Your task to perform on an android device: change the upload size in google photos Image 0: 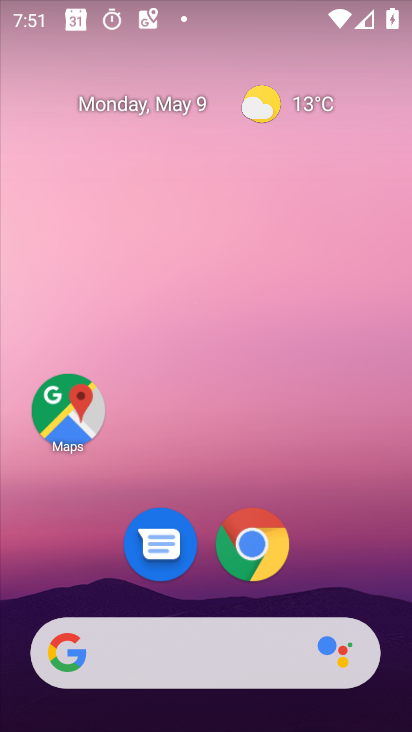
Step 0: drag from (338, 514) to (230, 6)
Your task to perform on an android device: change the upload size in google photos Image 1: 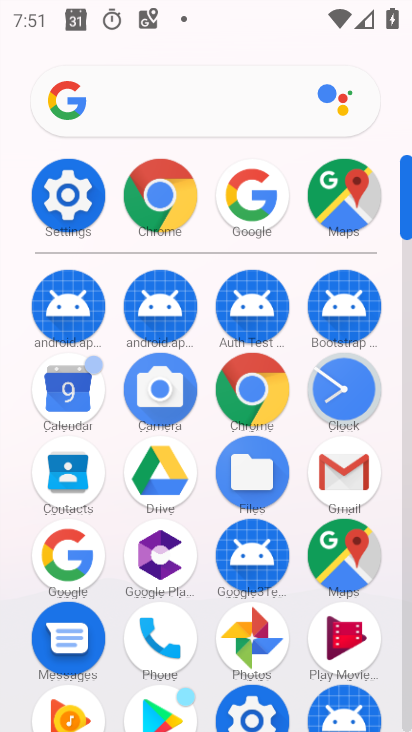
Step 1: drag from (392, 486) to (331, 140)
Your task to perform on an android device: change the upload size in google photos Image 2: 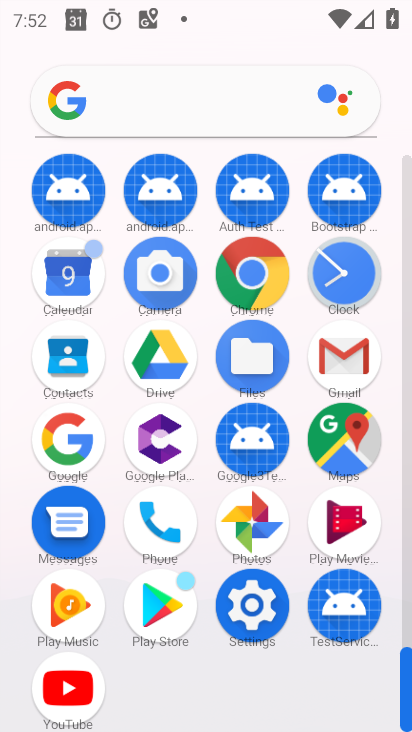
Step 2: click (247, 520)
Your task to perform on an android device: change the upload size in google photos Image 3: 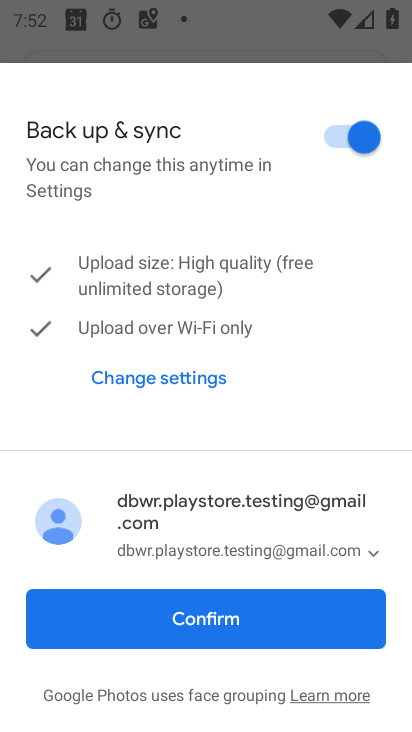
Step 3: click (199, 606)
Your task to perform on an android device: change the upload size in google photos Image 4: 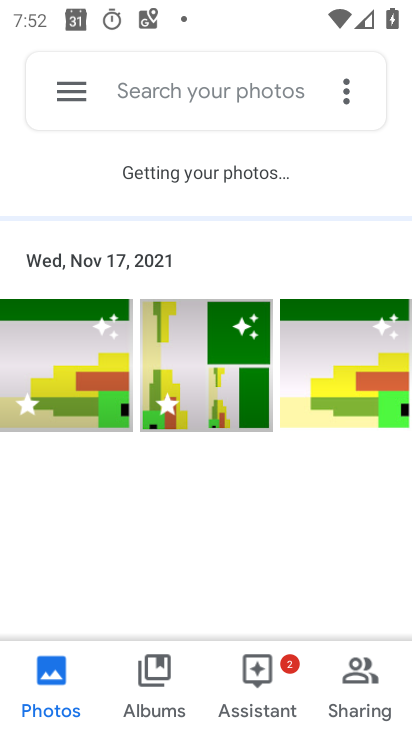
Step 4: click (69, 102)
Your task to perform on an android device: change the upload size in google photos Image 5: 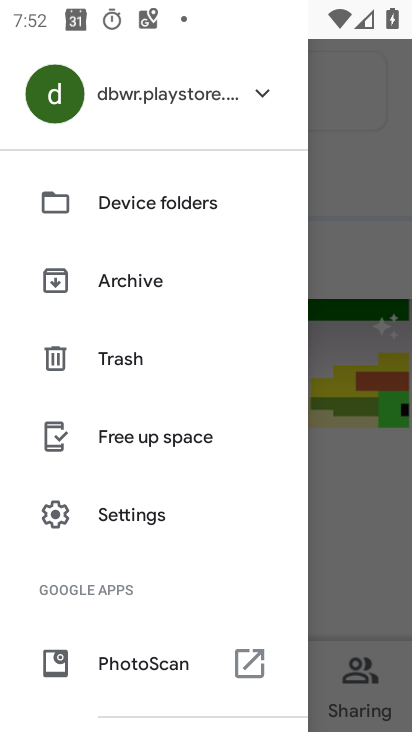
Step 5: click (129, 514)
Your task to perform on an android device: change the upload size in google photos Image 6: 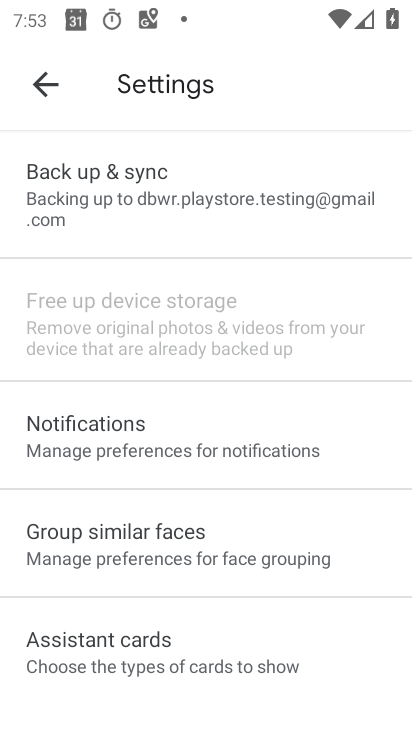
Step 6: click (50, 209)
Your task to perform on an android device: change the upload size in google photos Image 7: 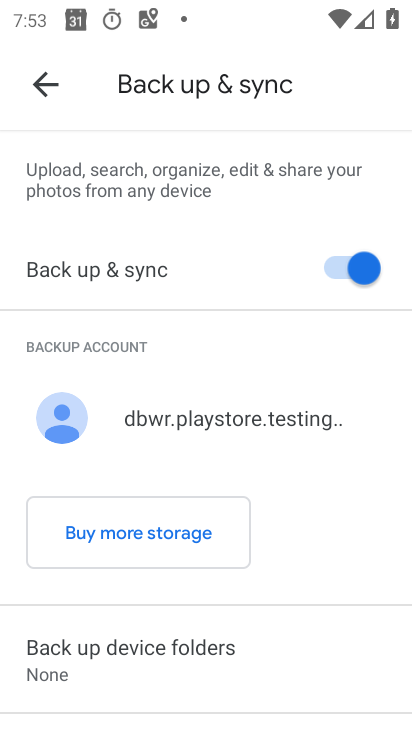
Step 7: drag from (315, 650) to (343, 332)
Your task to perform on an android device: change the upload size in google photos Image 8: 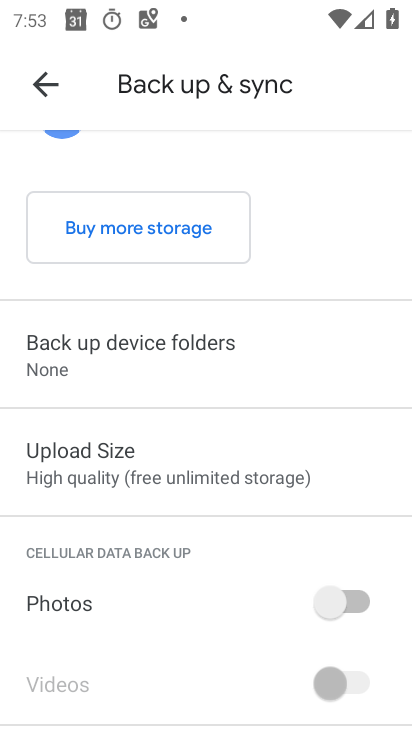
Step 8: drag from (300, 659) to (331, 237)
Your task to perform on an android device: change the upload size in google photos Image 9: 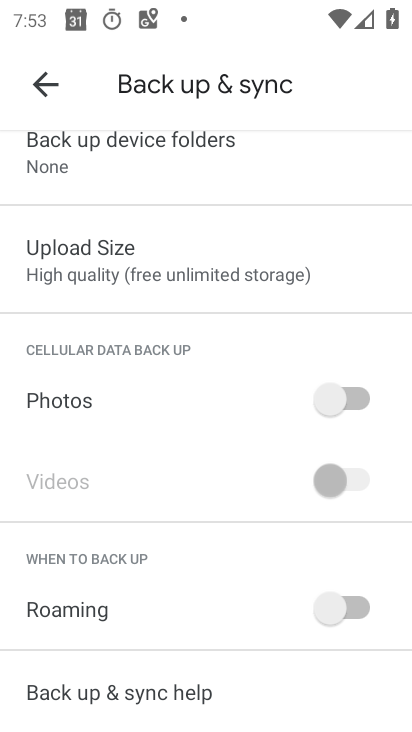
Step 9: click (166, 270)
Your task to perform on an android device: change the upload size in google photos Image 10: 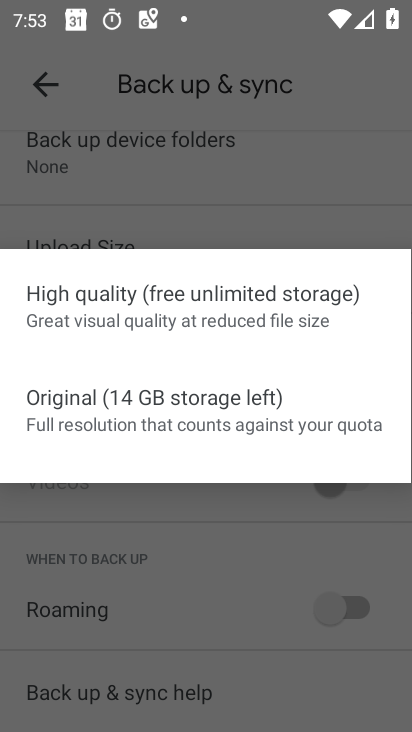
Step 10: click (110, 426)
Your task to perform on an android device: change the upload size in google photos Image 11: 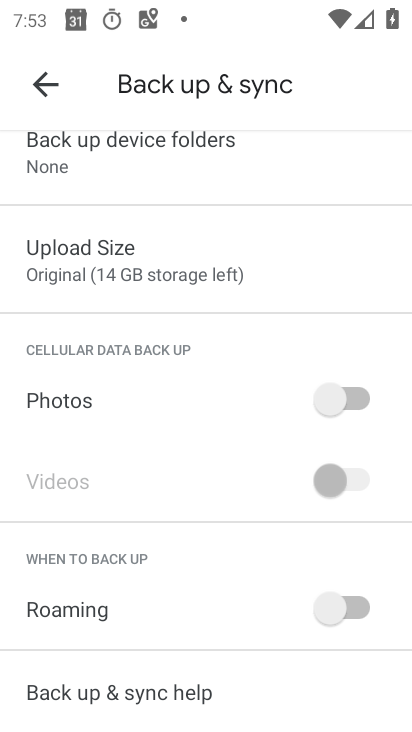
Step 11: task complete